Your task to perform on an android device: clear history in the chrome app Image 0: 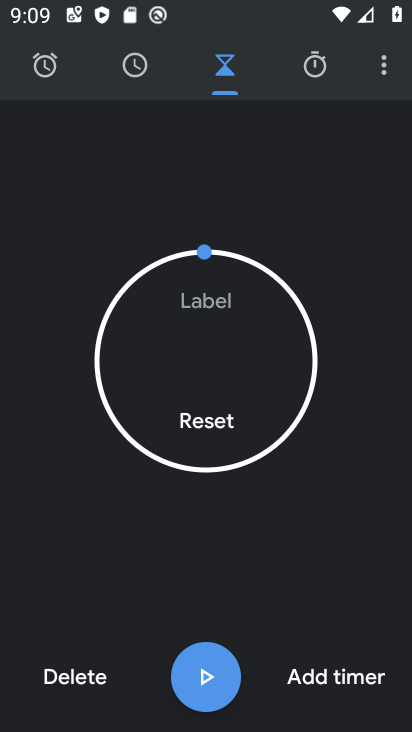
Step 0: press back button
Your task to perform on an android device: clear history in the chrome app Image 1: 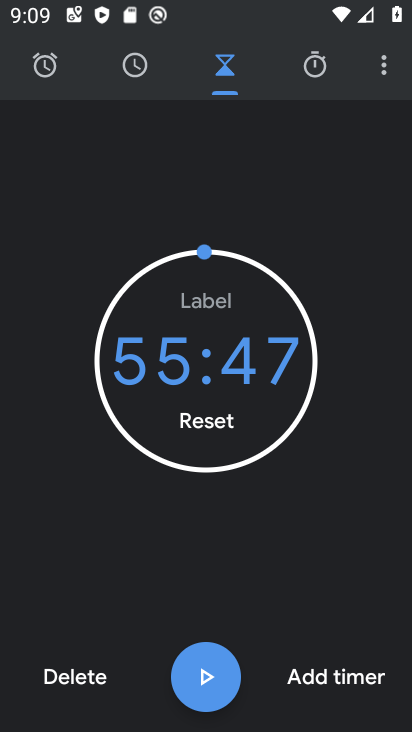
Step 1: press back button
Your task to perform on an android device: clear history in the chrome app Image 2: 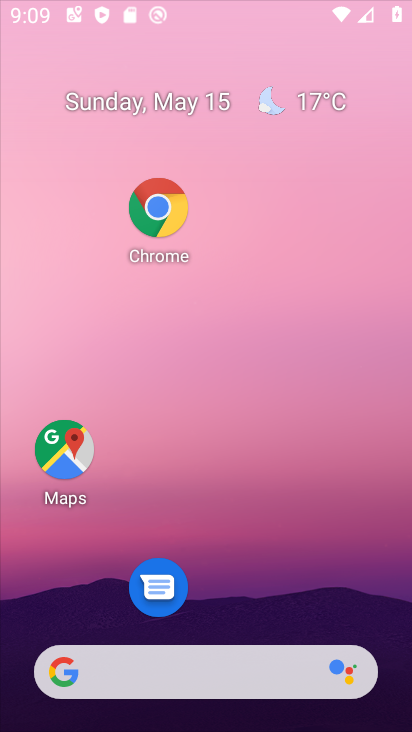
Step 2: press back button
Your task to perform on an android device: clear history in the chrome app Image 3: 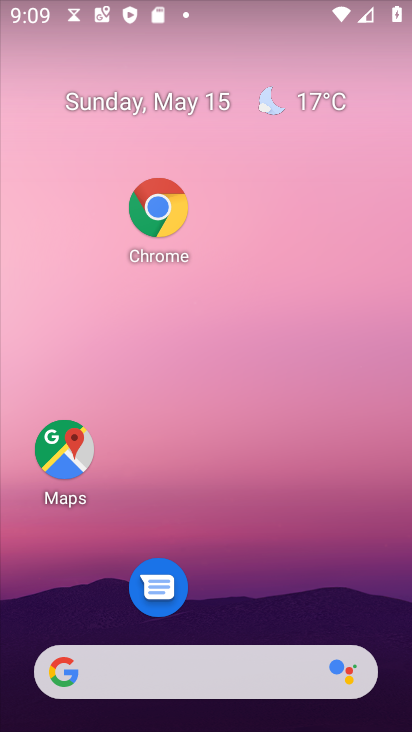
Step 3: drag from (384, 630) to (270, 271)
Your task to perform on an android device: clear history in the chrome app Image 4: 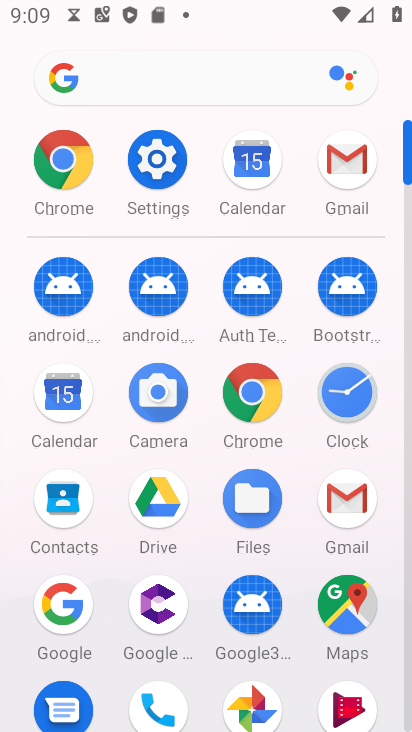
Step 4: drag from (144, 180) to (167, 2)
Your task to perform on an android device: clear history in the chrome app Image 5: 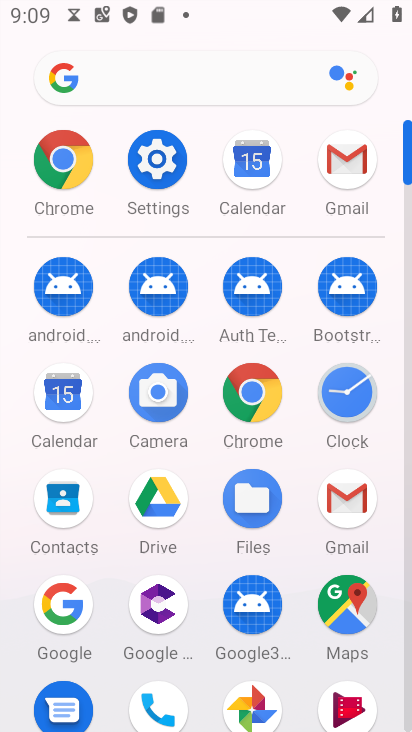
Step 5: click (51, 166)
Your task to perform on an android device: clear history in the chrome app Image 6: 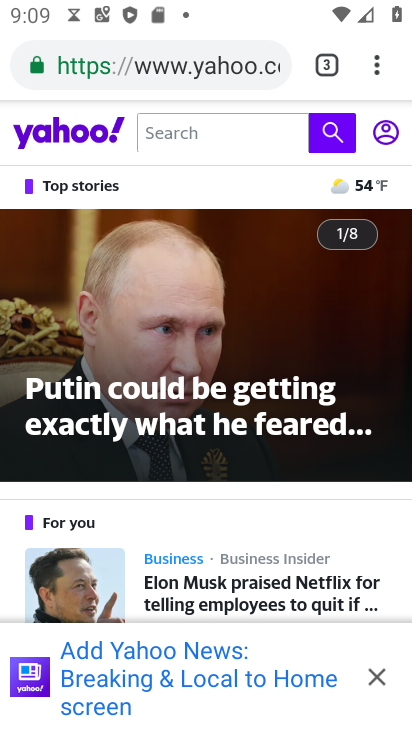
Step 6: click (376, 55)
Your task to perform on an android device: clear history in the chrome app Image 7: 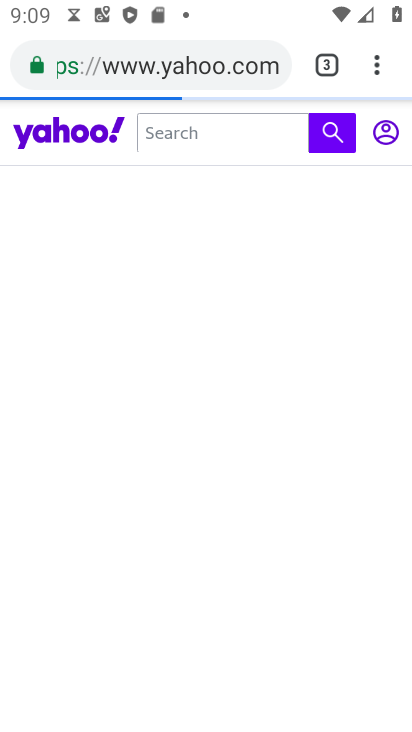
Step 7: click (373, 59)
Your task to perform on an android device: clear history in the chrome app Image 8: 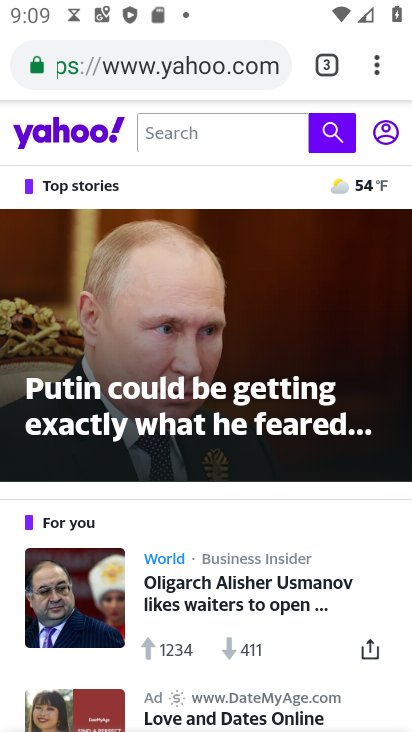
Step 8: click (366, 75)
Your task to perform on an android device: clear history in the chrome app Image 9: 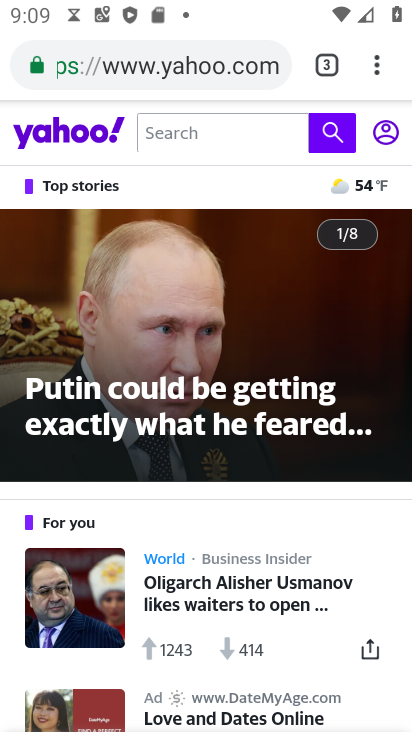
Step 9: click (376, 67)
Your task to perform on an android device: clear history in the chrome app Image 10: 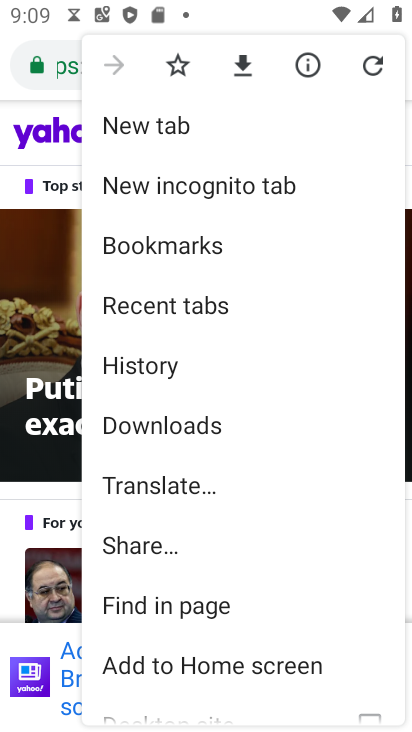
Step 10: drag from (194, 453) to (199, 101)
Your task to perform on an android device: clear history in the chrome app Image 11: 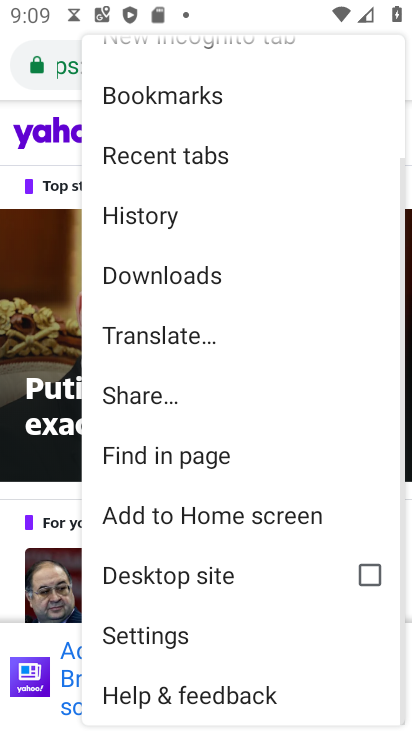
Step 11: click (135, 305)
Your task to perform on an android device: clear history in the chrome app Image 12: 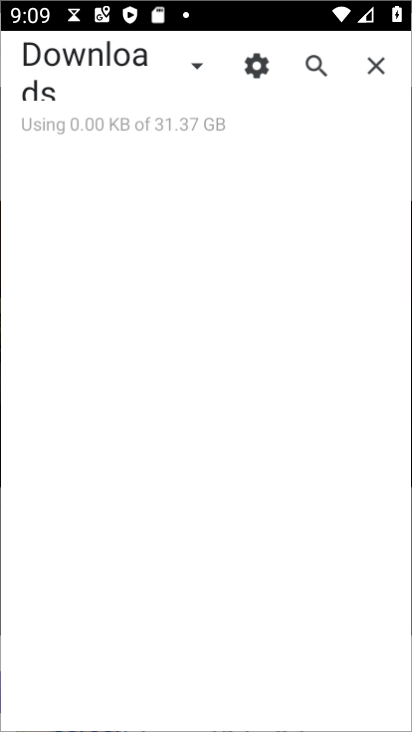
Step 12: click (141, 150)
Your task to perform on an android device: clear history in the chrome app Image 13: 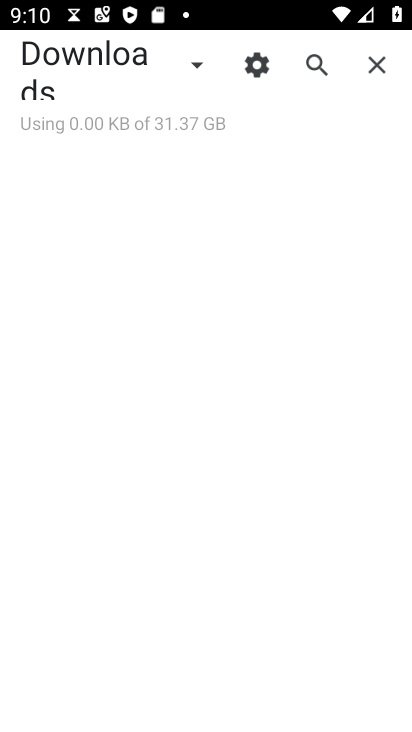
Step 13: press back button
Your task to perform on an android device: clear history in the chrome app Image 14: 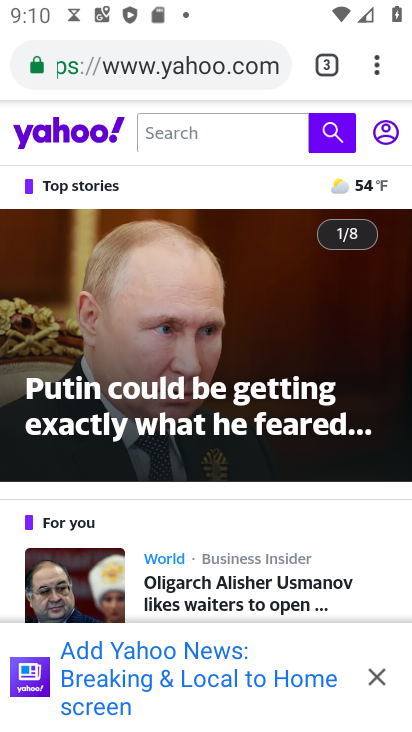
Step 14: click (371, 67)
Your task to perform on an android device: clear history in the chrome app Image 15: 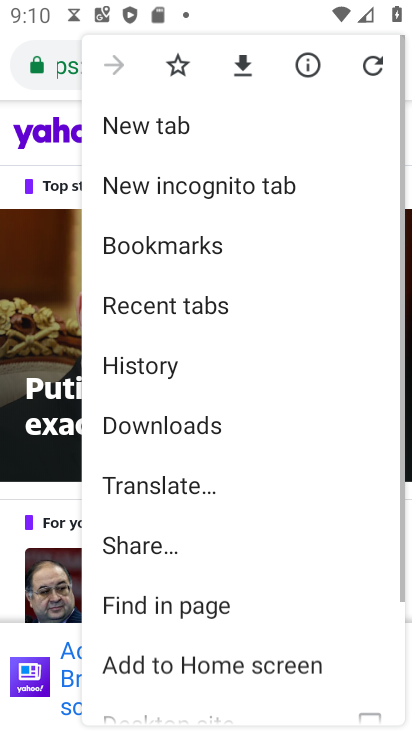
Step 15: click (373, 66)
Your task to perform on an android device: clear history in the chrome app Image 16: 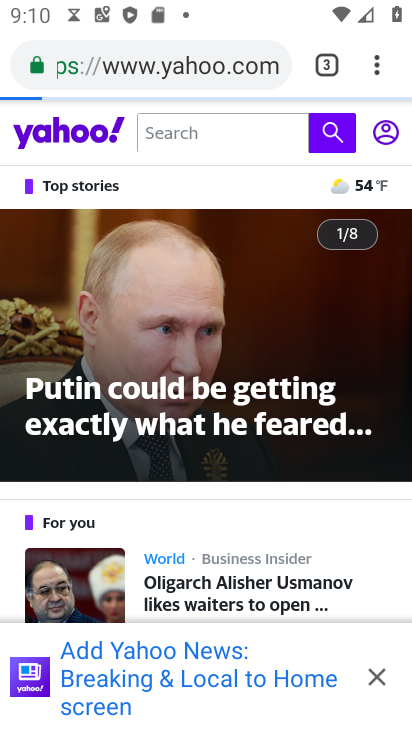
Step 16: click (377, 56)
Your task to perform on an android device: clear history in the chrome app Image 17: 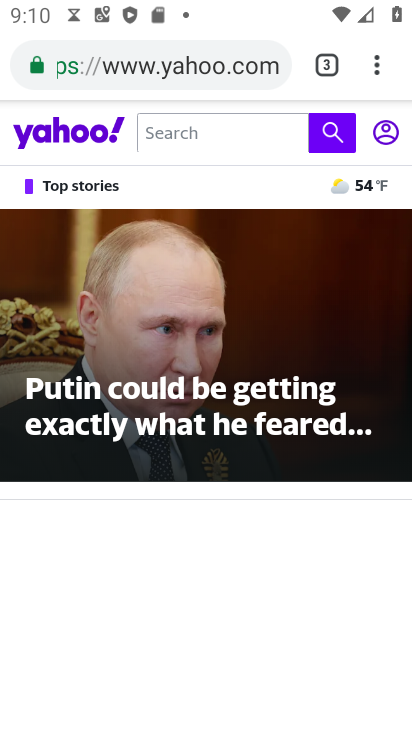
Step 17: click (372, 57)
Your task to perform on an android device: clear history in the chrome app Image 18: 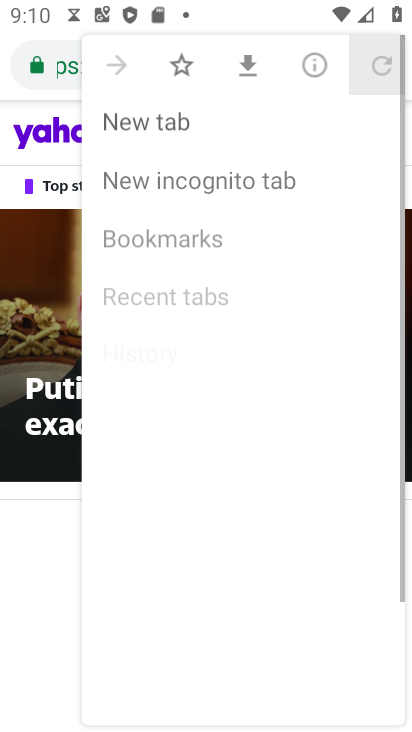
Step 18: click (372, 57)
Your task to perform on an android device: clear history in the chrome app Image 19: 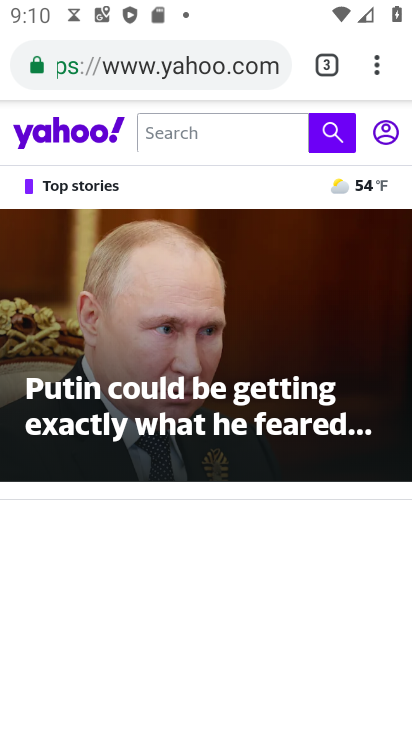
Step 19: drag from (372, 57) to (142, 352)
Your task to perform on an android device: clear history in the chrome app Image 20: 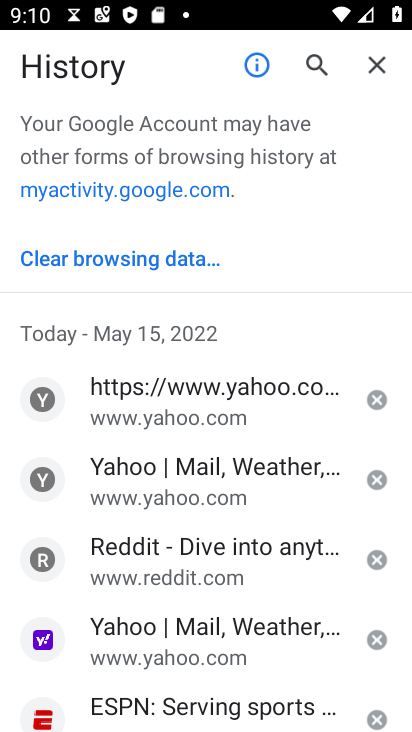
Step 20: click (181, 257)
Your task to perform on an android device: clear history in the chrome app Image 21: 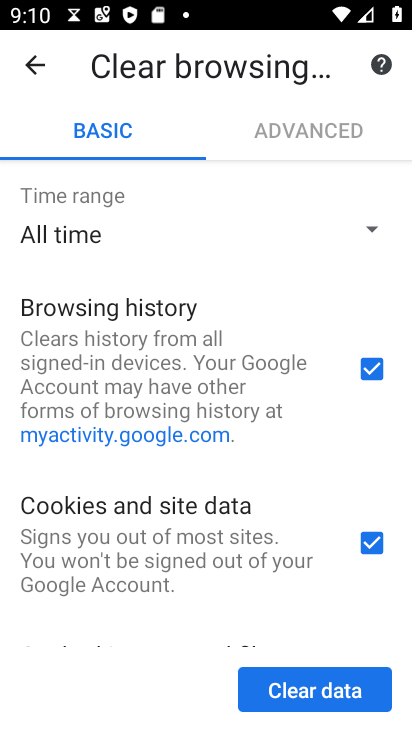
Step 21: click (302, 693)
Your task to perform on an android device: clear history in the chrome app Image 22: 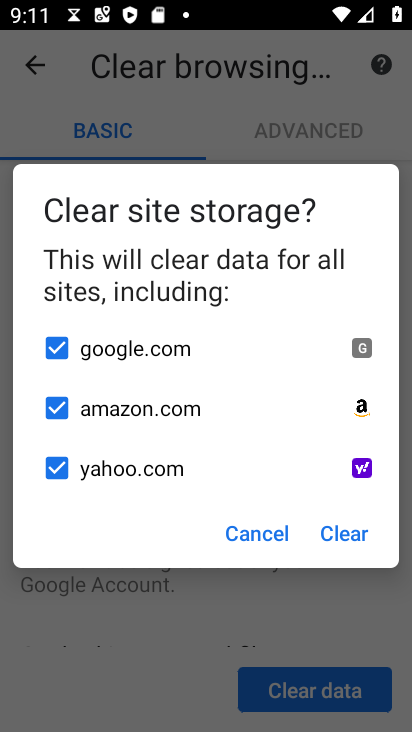
Step 22: click (350, 525)
Your task to perform on an android device: clear history in the chrome app Image 23: 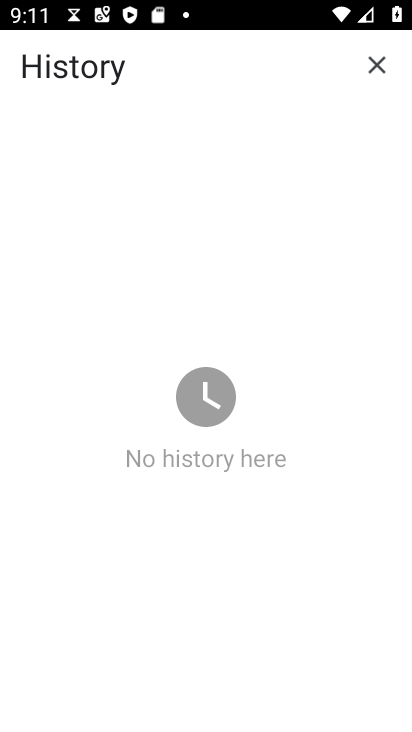
Step 23: task complete